Your task to perform on an android device: Search for vegetarian restaurants on Maps Image 0: 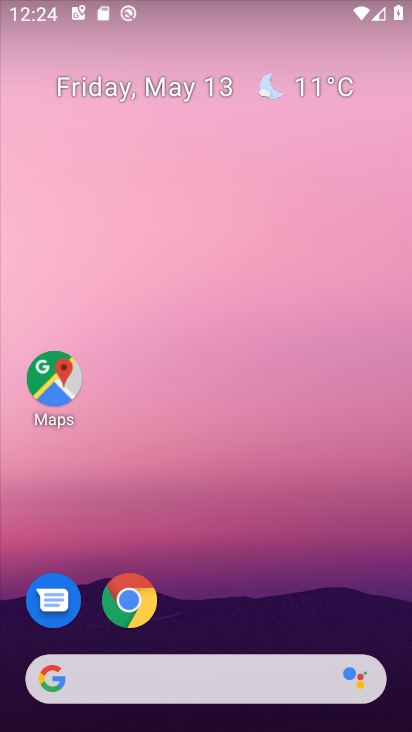
Step 0: click (62, 390)
Your task to perform on an android device: Search for vegetarian restaurants on Maps Image 1: 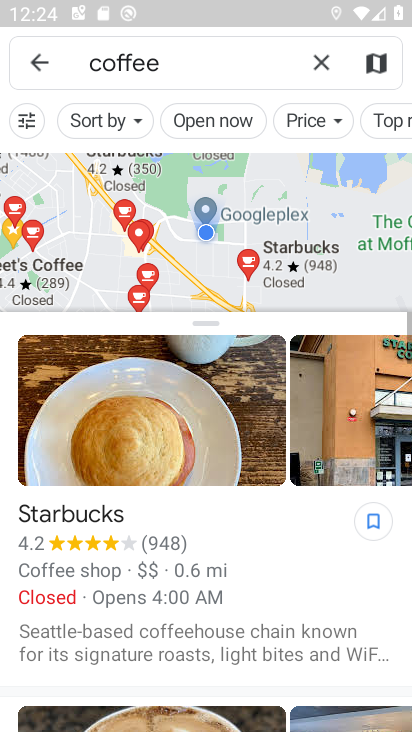
Step 1: click (327, 56)
Your task to perform on an android device: Search for vegetarian restaurants on Maps Image 2: 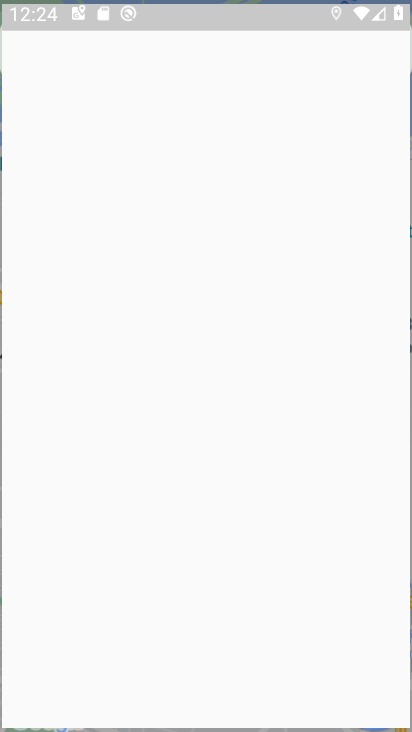
Step 2: click (224, 49)
Your task to perform on an android device: Search for vegetarian restaurants on Maps Image 3: 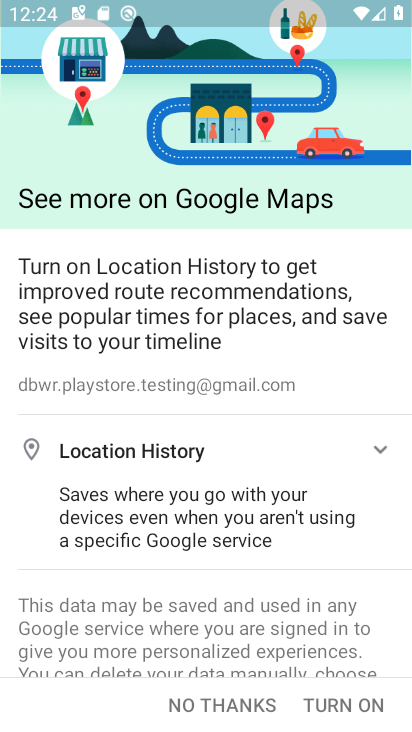
Step 3: click (343, 706)
Your task to perform on an android device: Search for vegetarian restaurants on Maps Image 4: 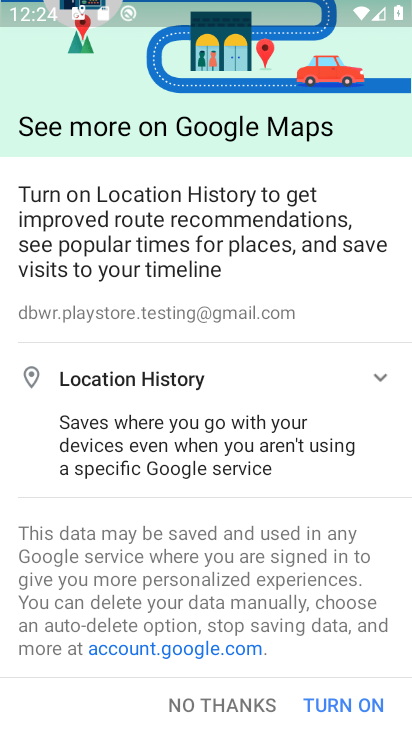
Step 4: click (343, 706)
Your task to perform on an android device: Search for vegetarian restaurants on Maps Image 5: 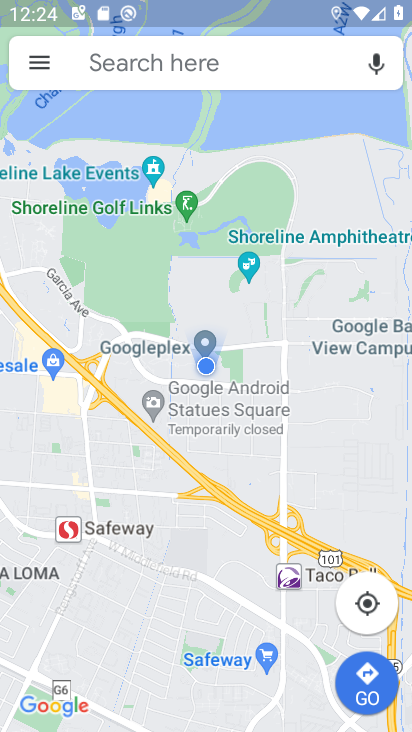
Step 5: click (116, 70)
Your task to perform on an android device: Search for vegetarian restaurants on Maps Image 6: 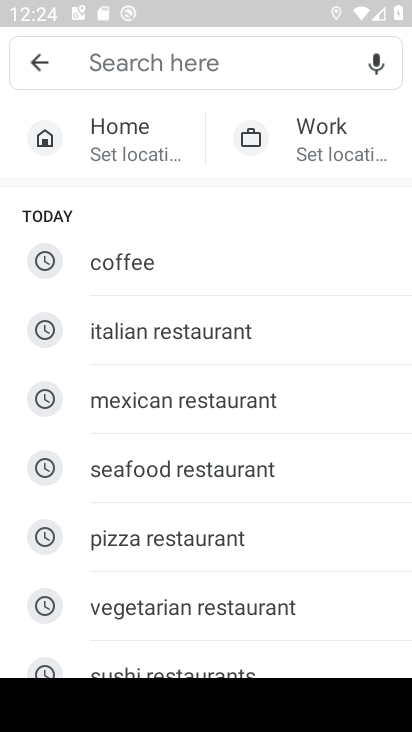
Step 6: click (177, 603)
Your task to perform on an android device: Search for vegetarian restaurants on Maps Image 7: 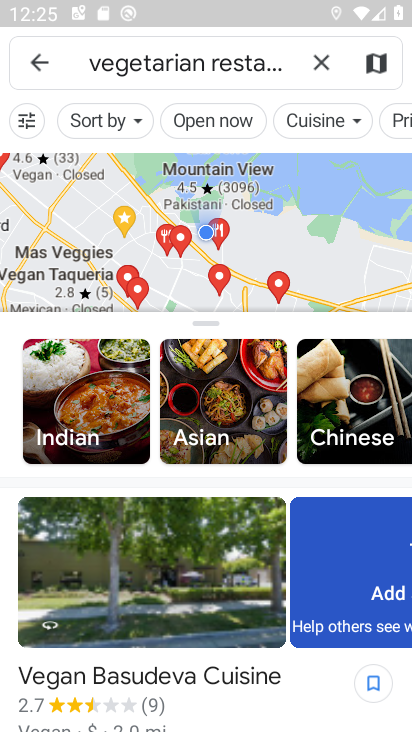
Step 7: task complete